Your task to perform on an android device: install app "Grab" Image 0: 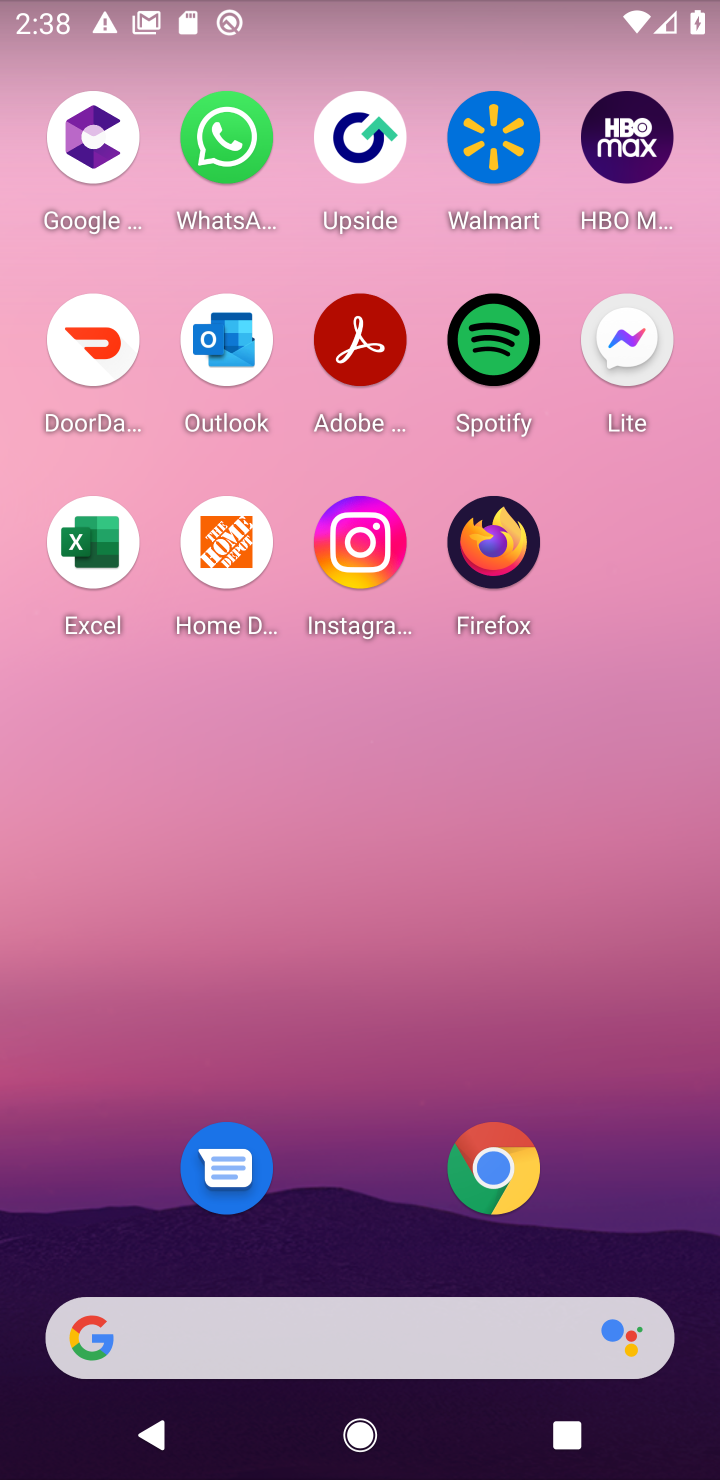
Step 0: drag from (310, 1304) to (390, 1)
Your task to perform on an android device: install app "Grab" Image 1: 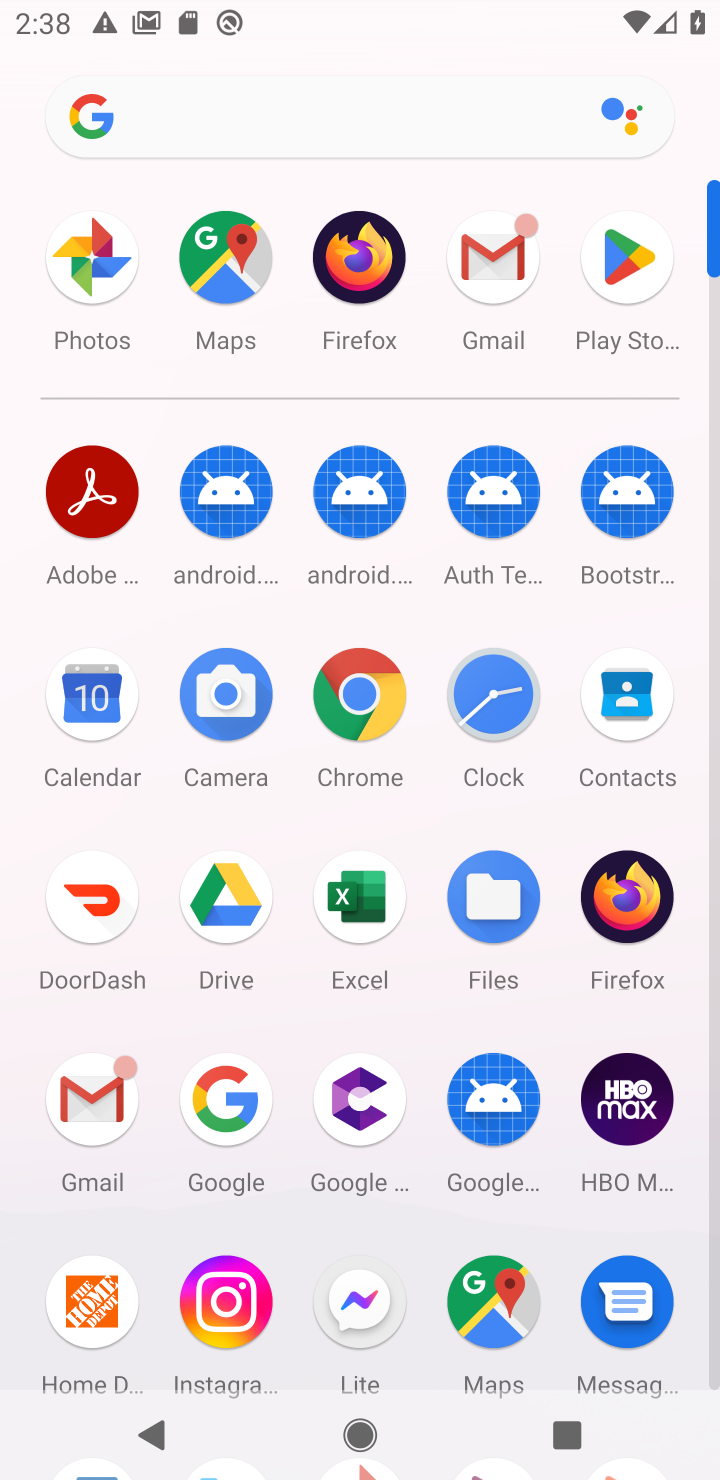
Step 1: click (634, 254)
Your task to perform on an android device: install app "Grab" Image 2: 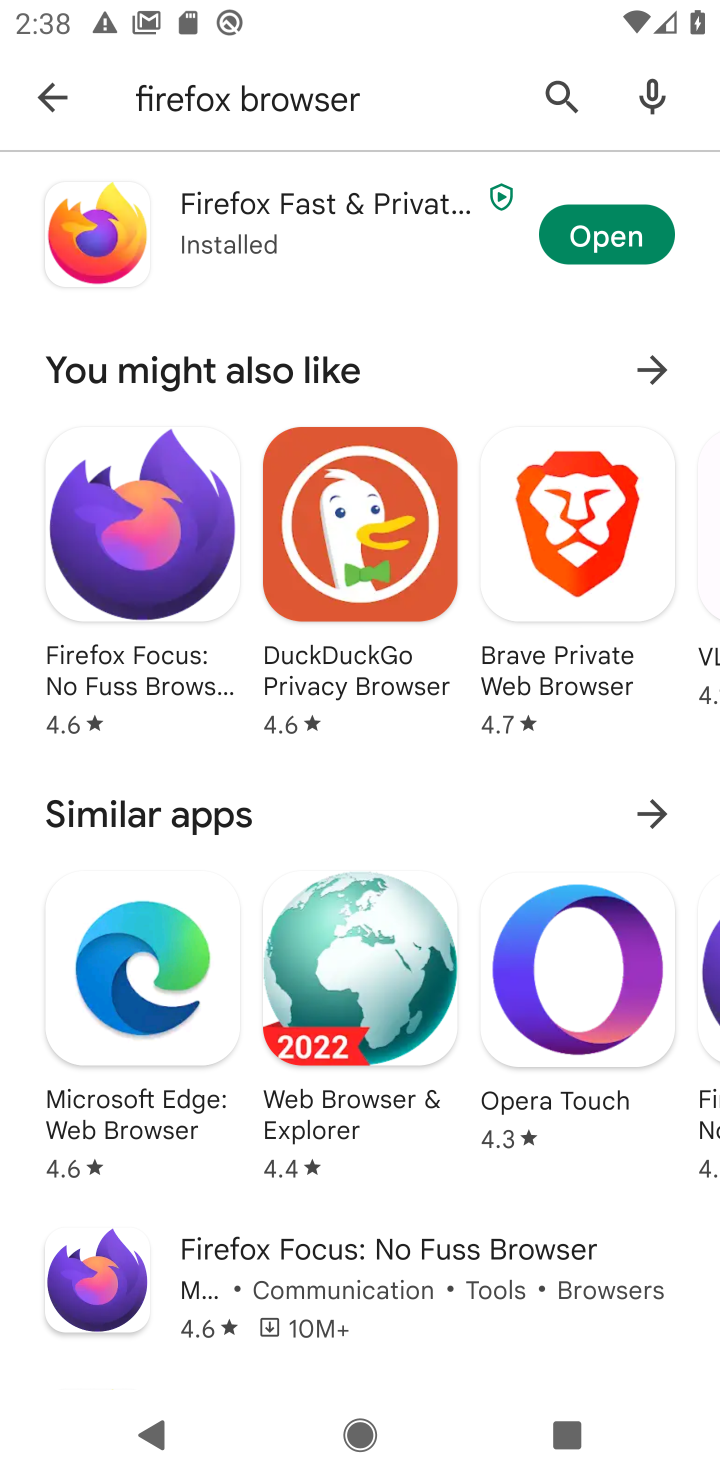
Step 2: click (567, 93)
Your task to perform on an android device: install app "Grab" Image 3: 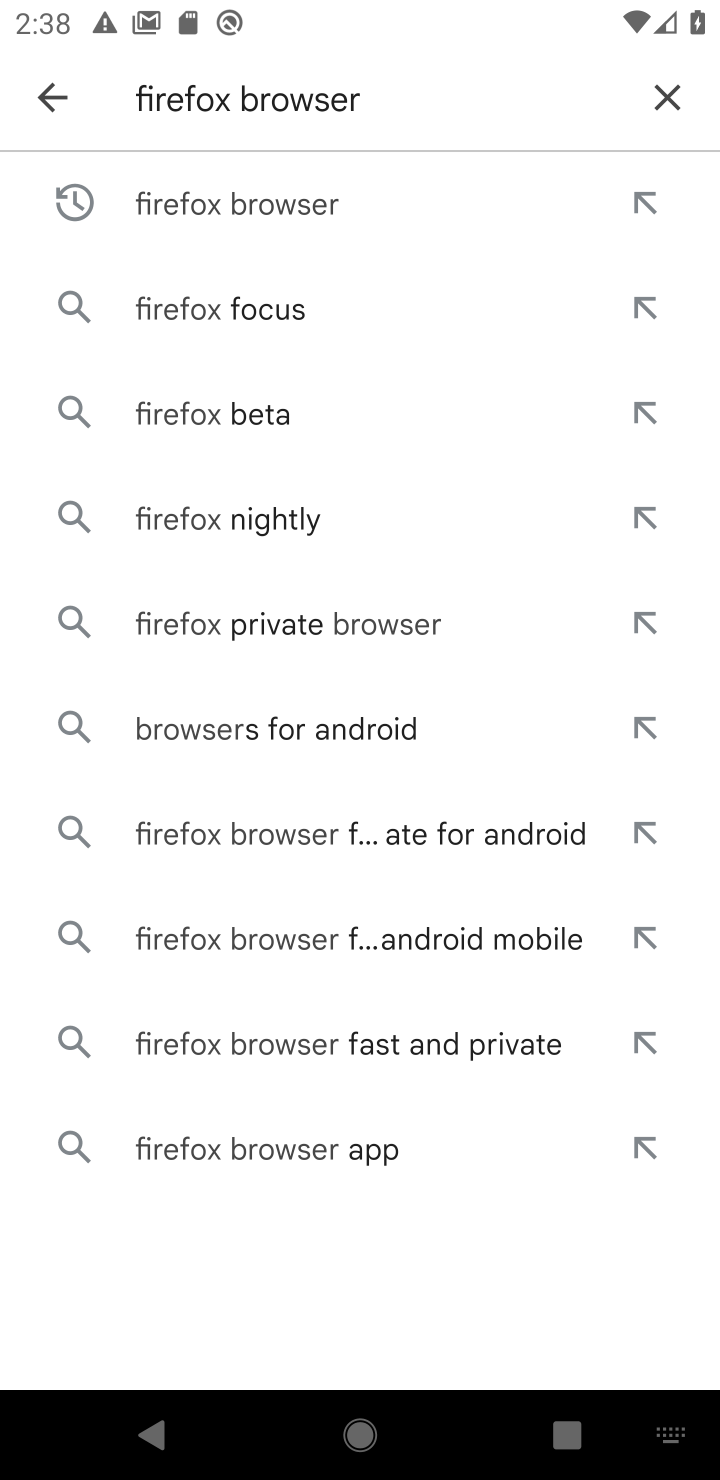
Step 3: click (671, 105)
Your task to perform on an android device: install app "Grab" Image 4: 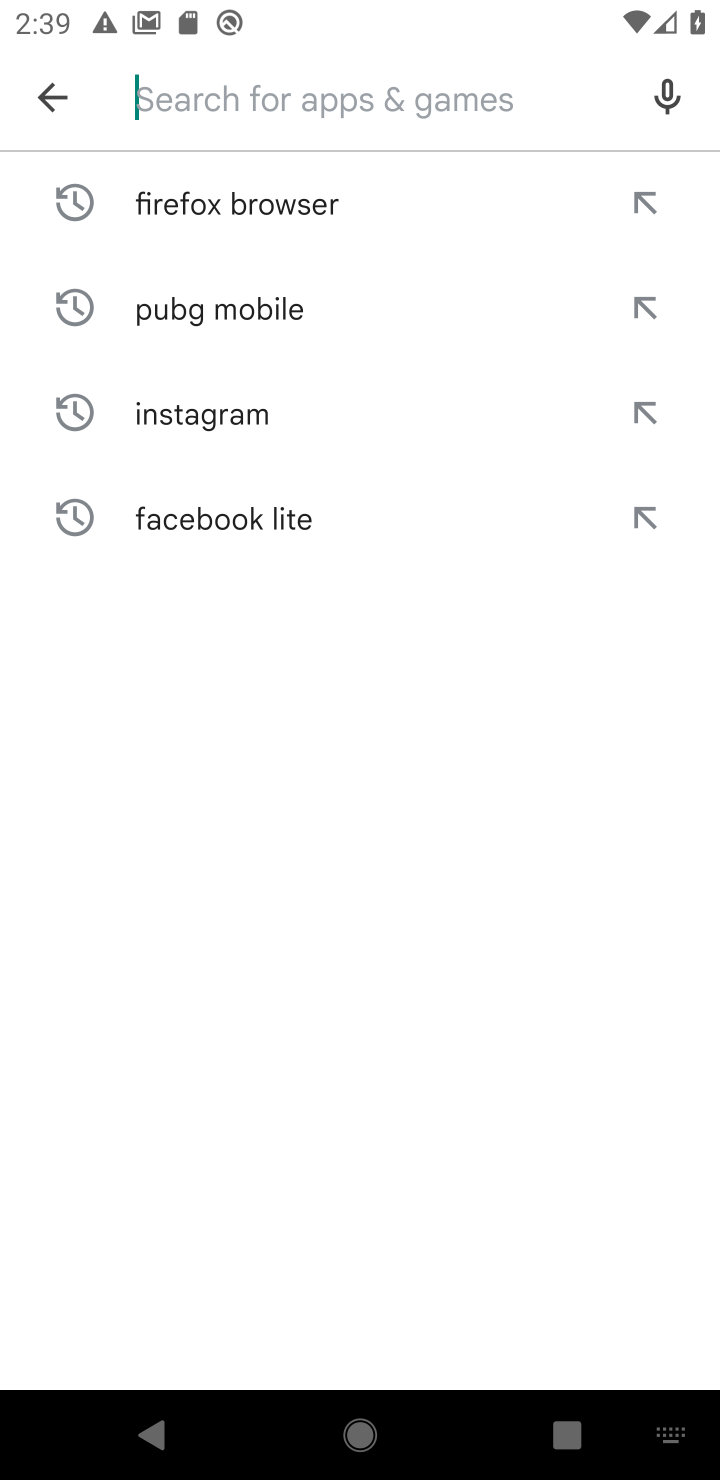
Step 4: type "Grab"
Your task to perform on an android device: install app "Grab" Image 5: 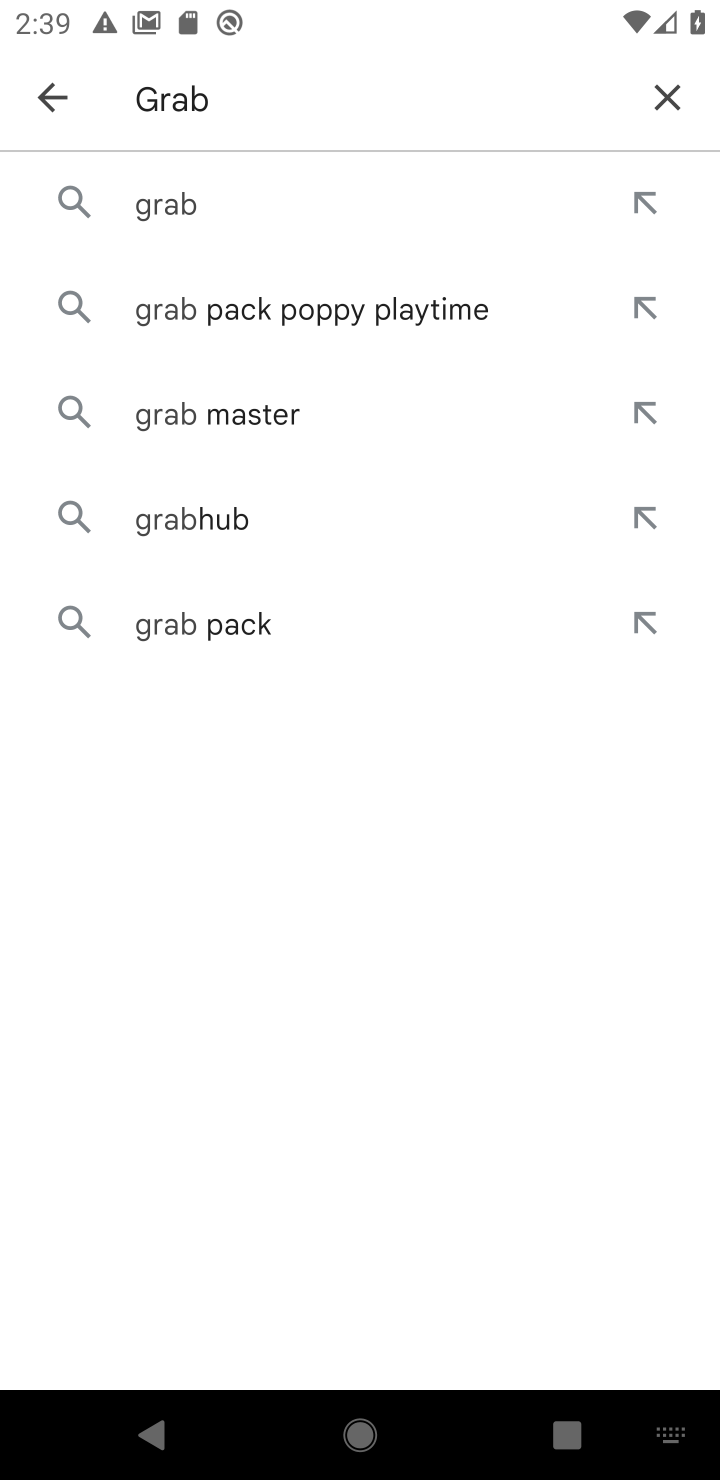
Step 5: click (156, 214)
Your task to perform on an android device: install app "Grab" Image 6: 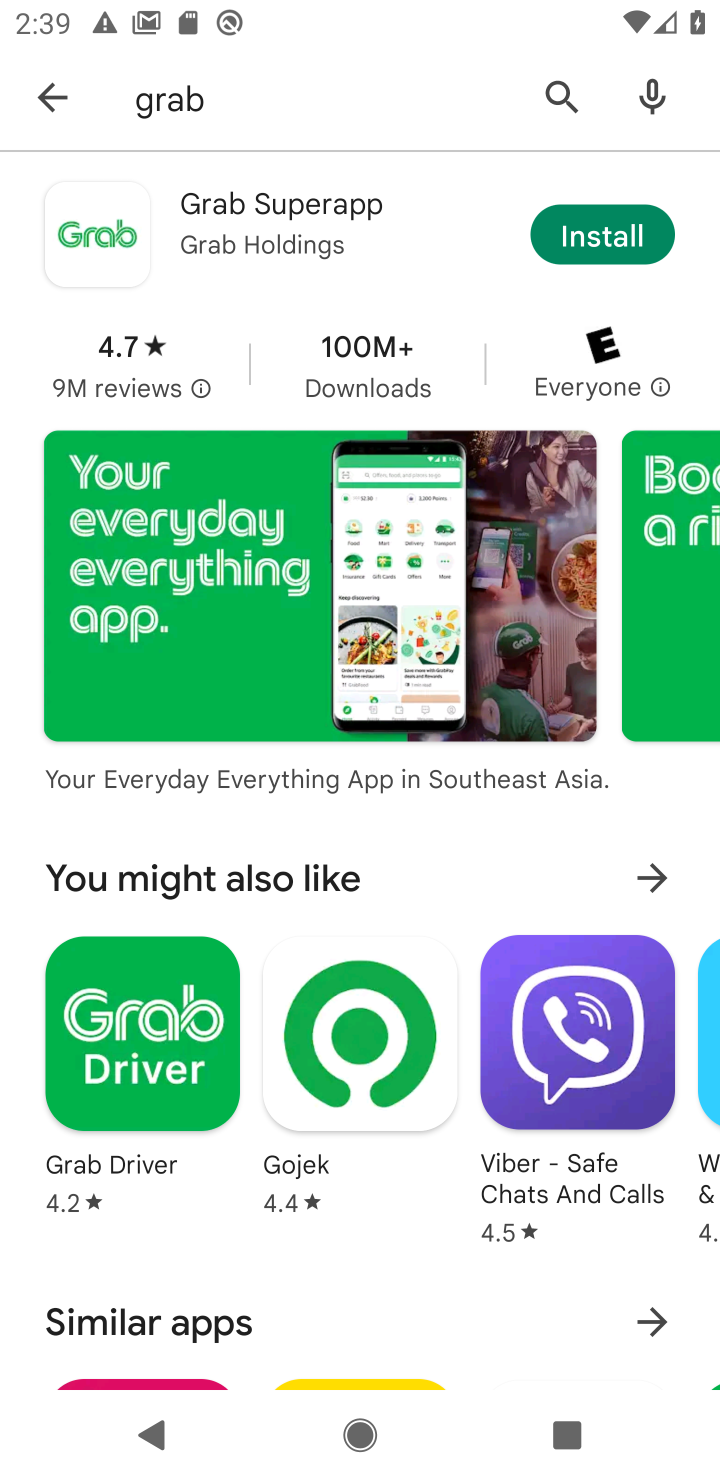
Step 6: click (612, 250)
Your task to perform on an android device: install app "Grab" Image 7: 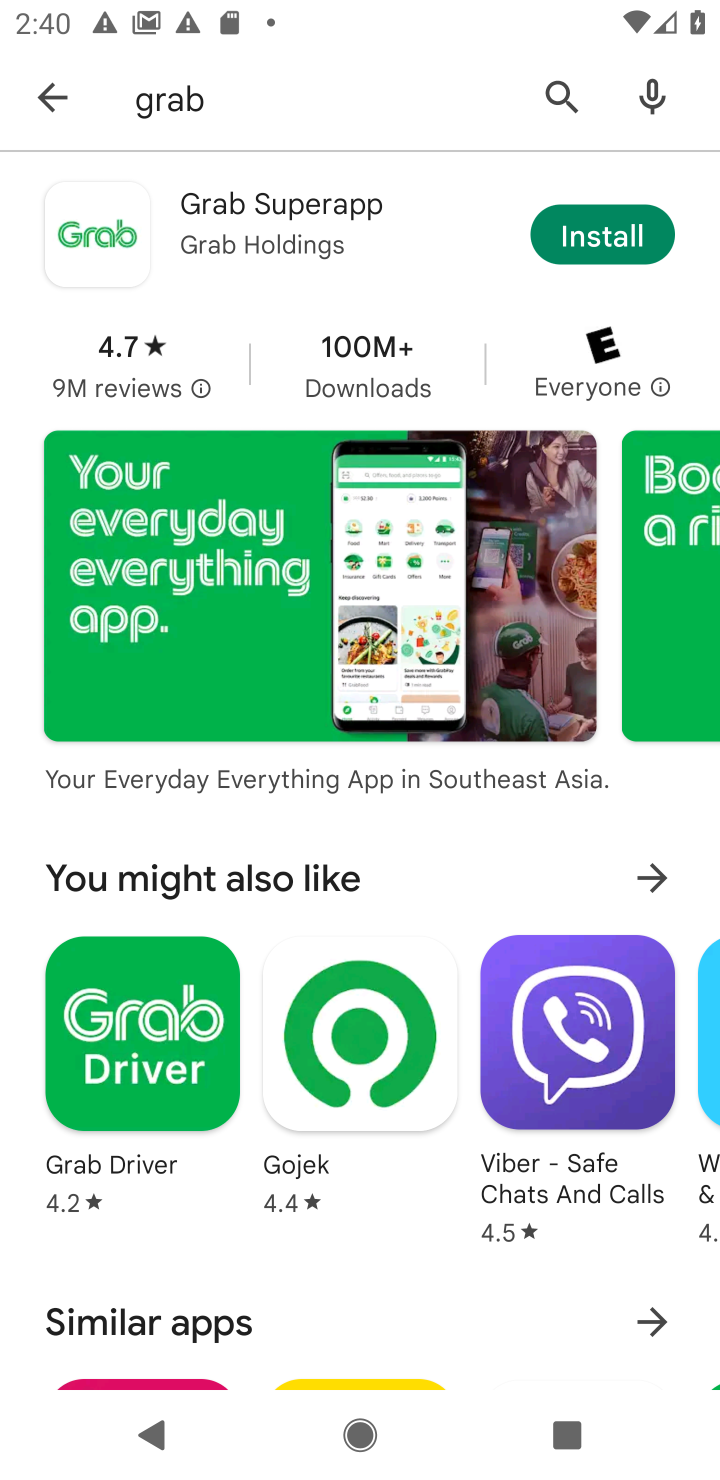
Step 7: click (612, 228)
Your task to perform on an android device: install app "Grab" Image 8: 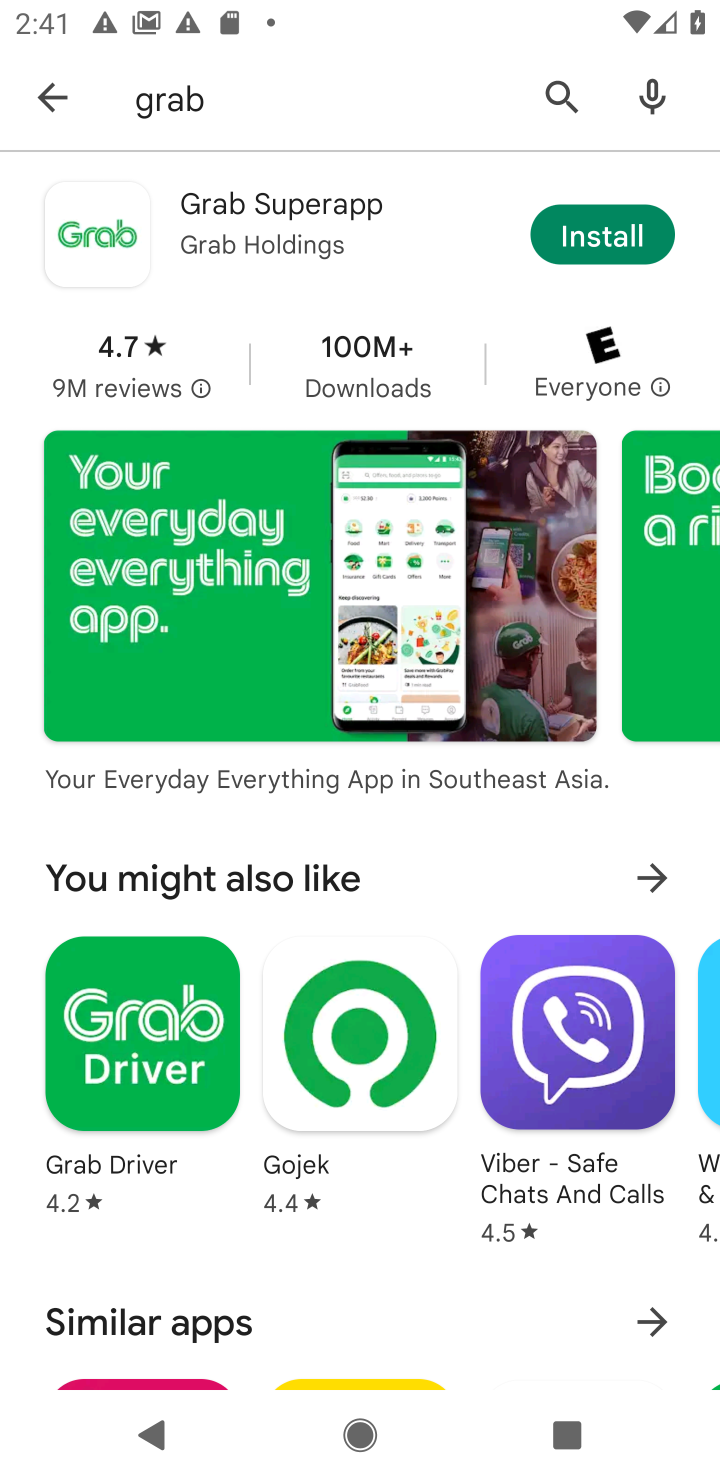
Step 8: task complete